Your task to perform on an android device: Show me the alarms in the clock app Image 0: 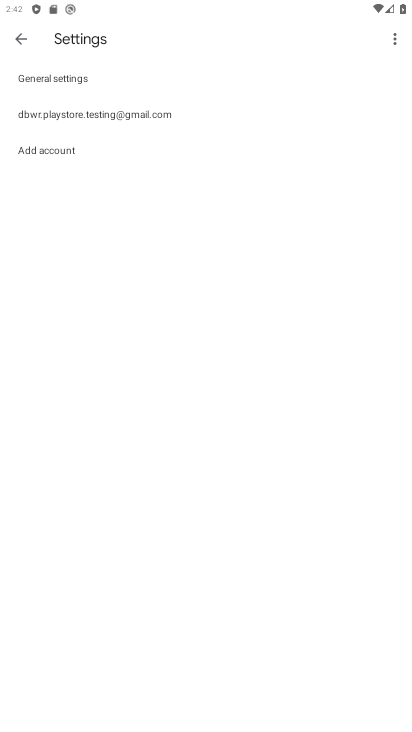
Step 0: press home button
Your task to perform on an android device: Show me the alarms in the clock app Image 1: 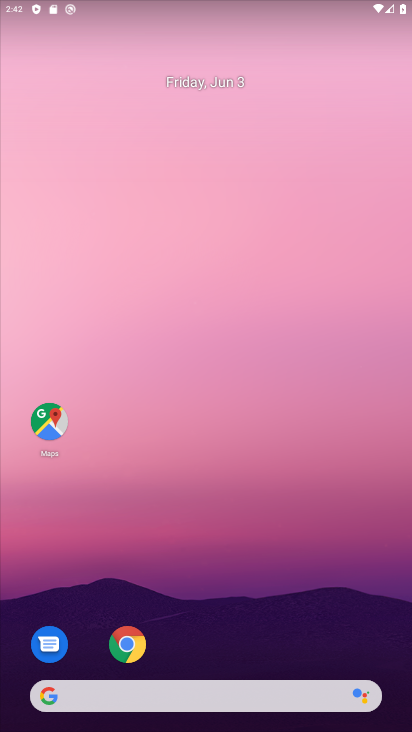
Step 1: drag from (288, 660) to (285, 42)
Your task to perform on an android device: Show me the alarms in the clock app Image 2: 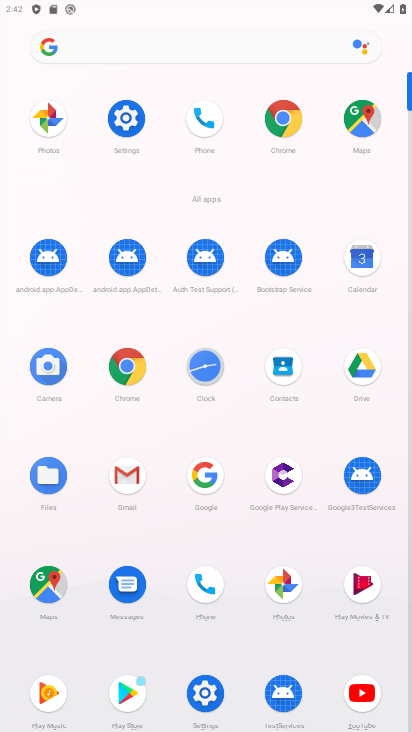
Step 2: click (207, 377)
Your task to perform on an android device: Show me the alarms in the clock app Image 3: 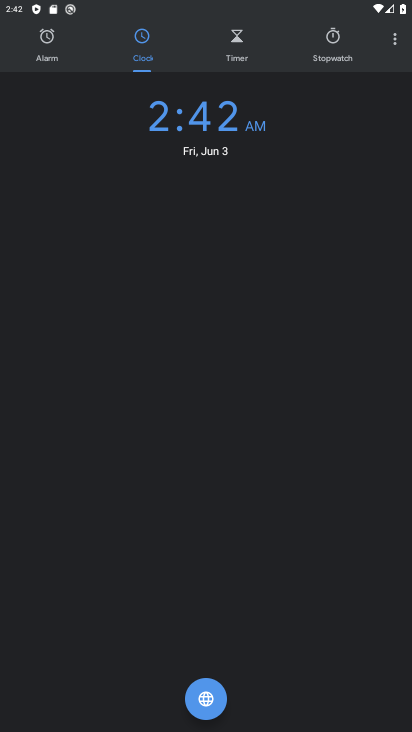
Step 3: click (53, 39)
Your task to perform on an android device: Show me the alarms in the clock app Image 4: 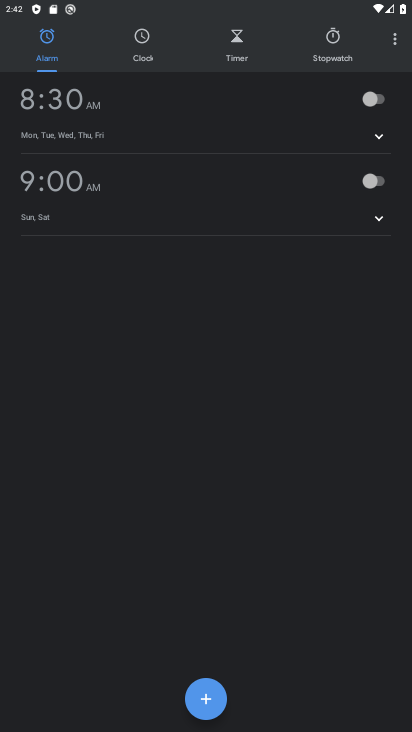
Step 4: task complete